Your task to perform on an android device: find which apps use the phone's location Image 0: 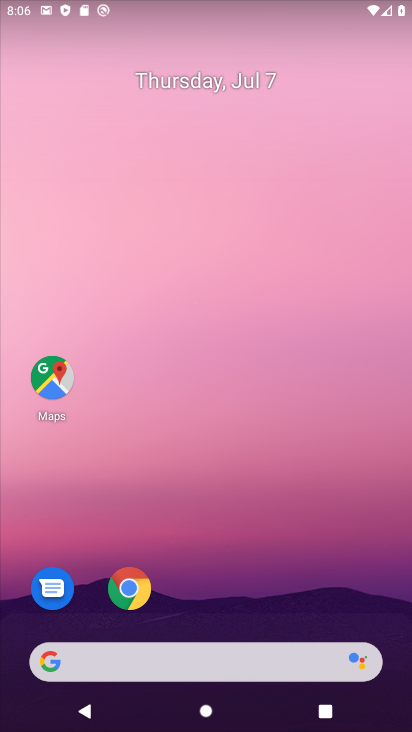
Step 0: drag from (321, 572) to (284, 210)
Your task to perform on an android device: find which apps use the phone's location Image 1: 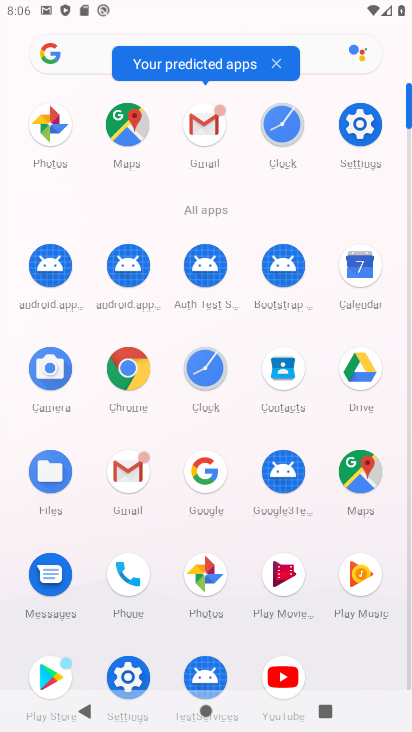
Step 1: click (370, 139)
Your task to perform on an android device: find which apps use the phone's location Image 2: 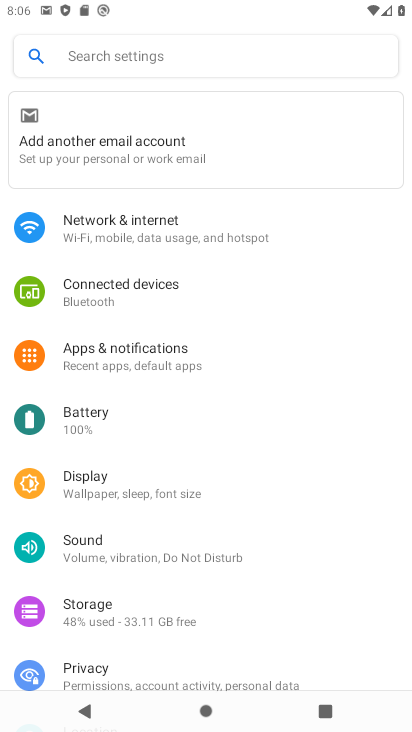
Step 2: drag from (320, 527) to (282, 365)
Your task to perform on an android device: find which apps use the phone's location Image 3: 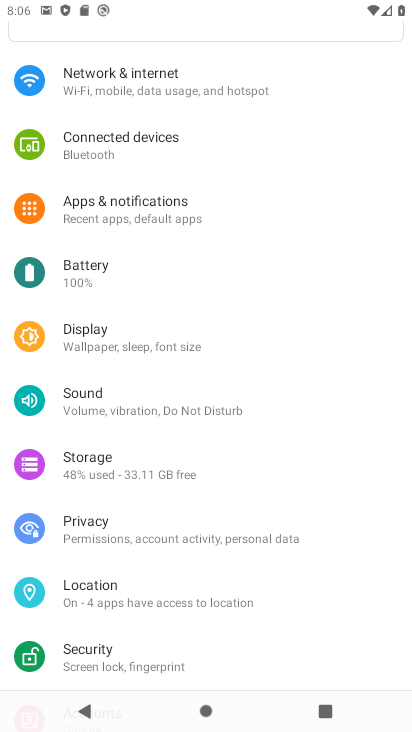
Step 3: click (122, 594)
Your task to perform on an android device: find which apps use the phone's location Image 4: 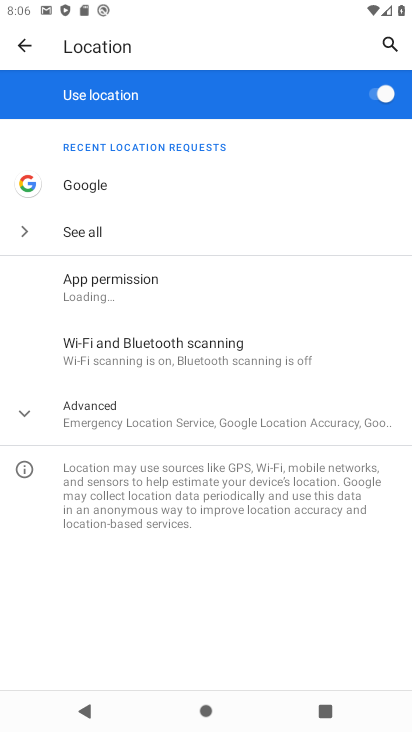
Step 4: click (241, 284)
Your task to perform on an android device: find which apps use the phone's location Image 5: 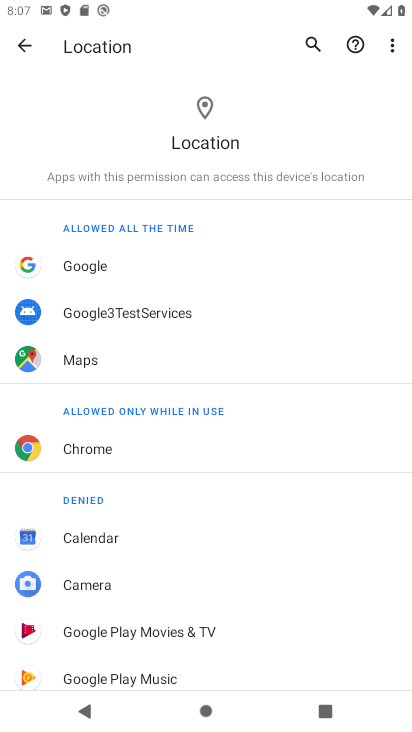
Step 5: task complete